Your task to perform on an android device: Go to calendar. Show me events next week Image 0: 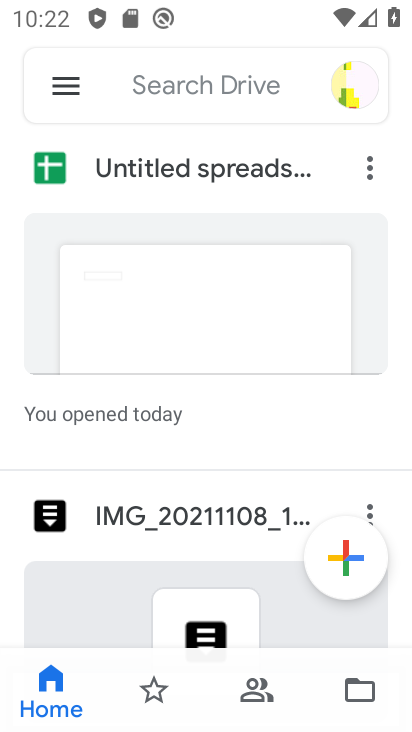
Step 0: press home button
Your task to perform on an android device: Go to calendar. Show me events next week Image 1: 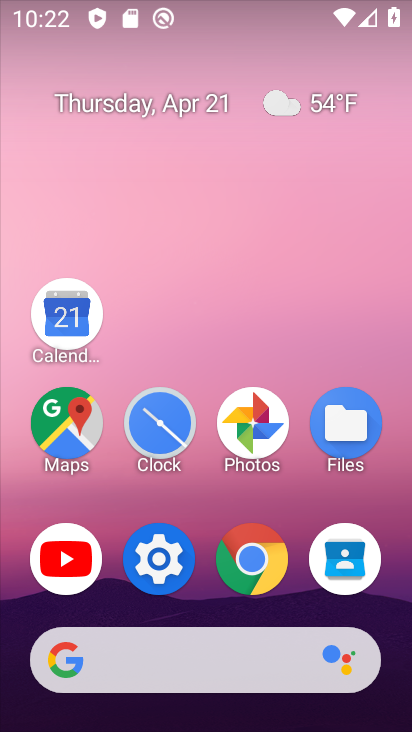
Step 1: click (69, 324)
Your task to perform on an android device: Go to calendar. Show me events next week Image 2: 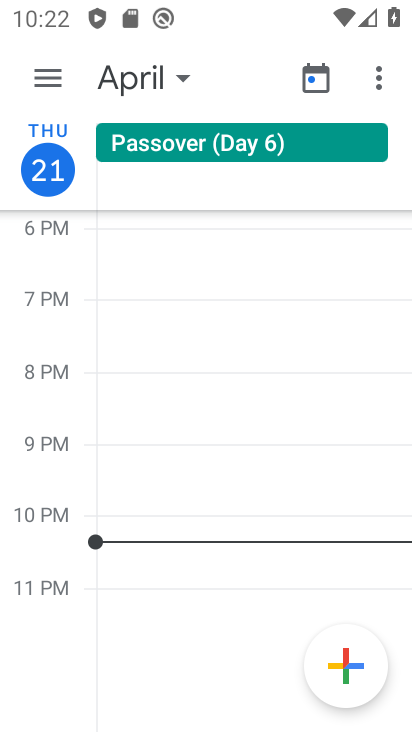
Step 2: click (177, 76)
Your task to perform on an android device: Go to calendar. Show me events next week Image 3: 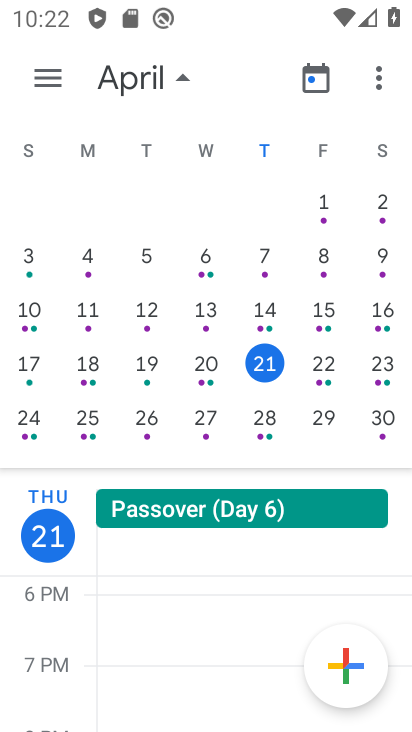
Step 3: click (24, 422)
Your task to perform on an android device: Go to calendar. Show me events next week Image 4: 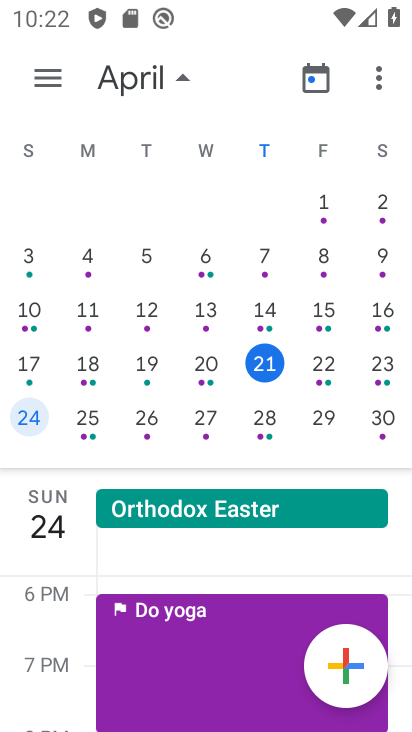
Step 4: click (43, 71)
Your task to perform on an android device: Go to calendar. Show me events next week Image 5: 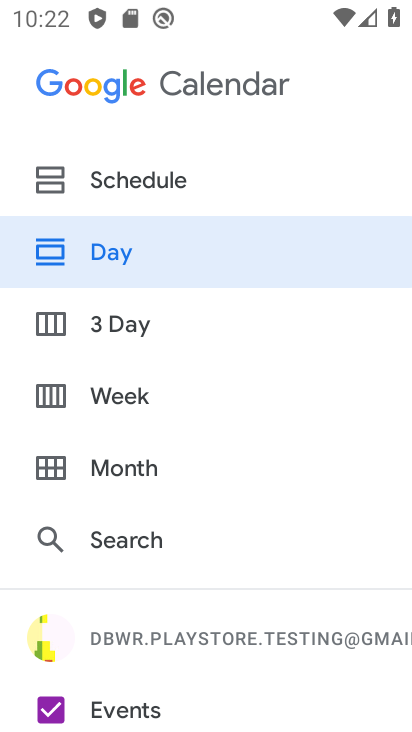
Step 5: click (118, 394)
Your task to perform on an android device: Go to calendar. Show me events next week Image 6: 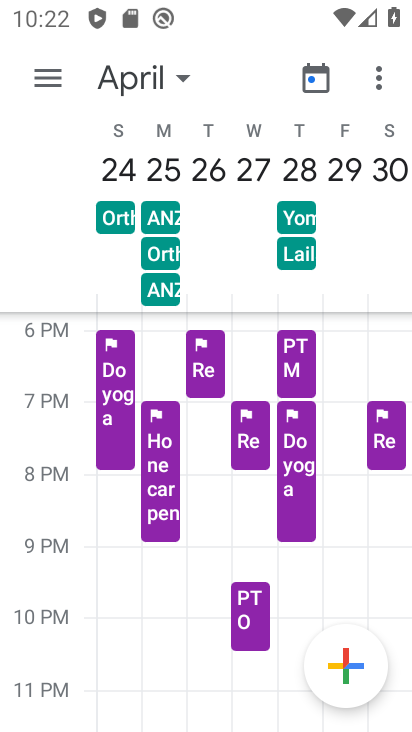
Step 6: task complete